Your task to perform on an android device: Go to location settings Image 0: 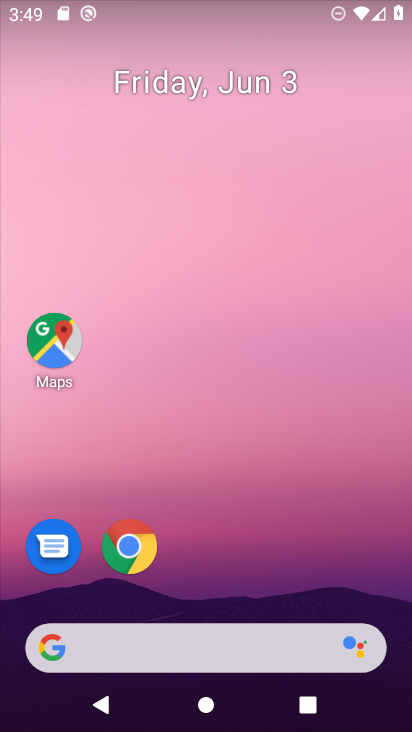
Step 0: drag from (233, 538) to (245, 31)
Your task to perform on an android device: Go to location settings Image 1: 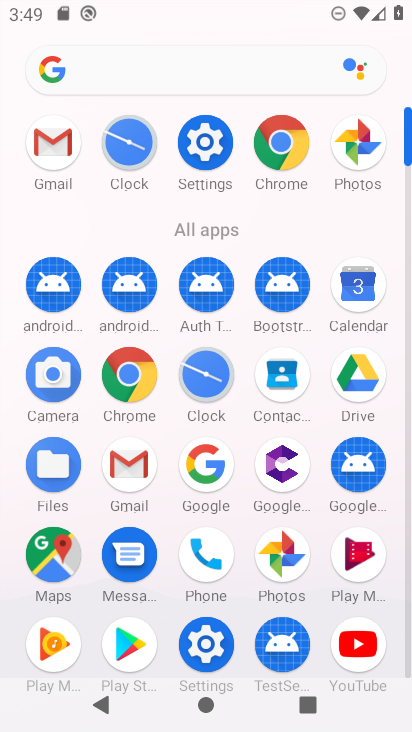
Step 1: click (202, 148)
Your task to perform on an android device: Go to location settings Image 2: 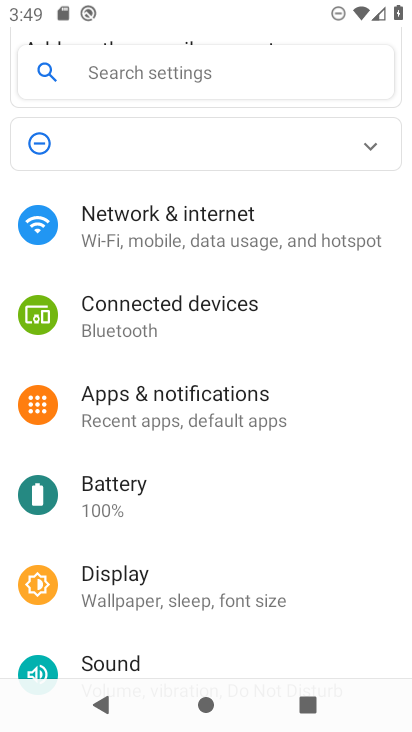
Step 2: drag from (240, 512) to (212, 3)
Your task to perform on an android device: Go to location settings Image 3: 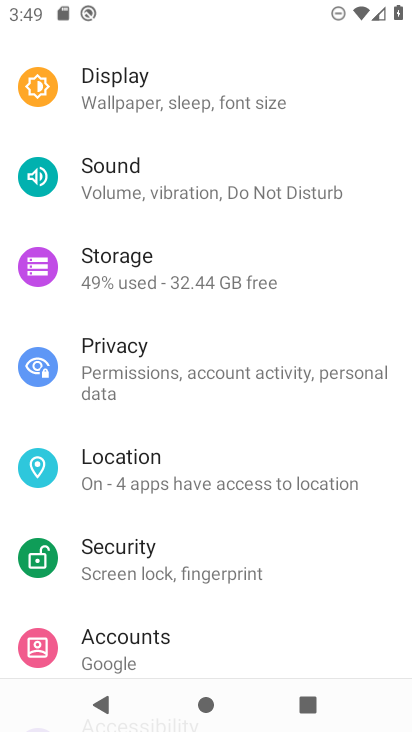
Step 3: click (194, 496)
Your task to perform on an android device: Go to location settings Image 4: 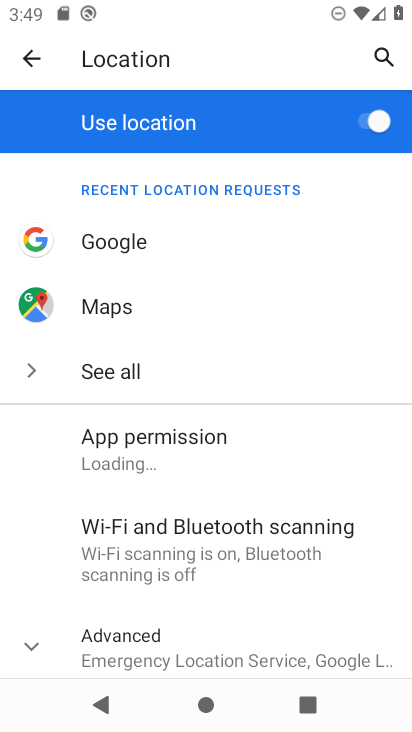
Step 4: task complete